Your task to perform on an android device: find which apps use the phone's location Image 0: 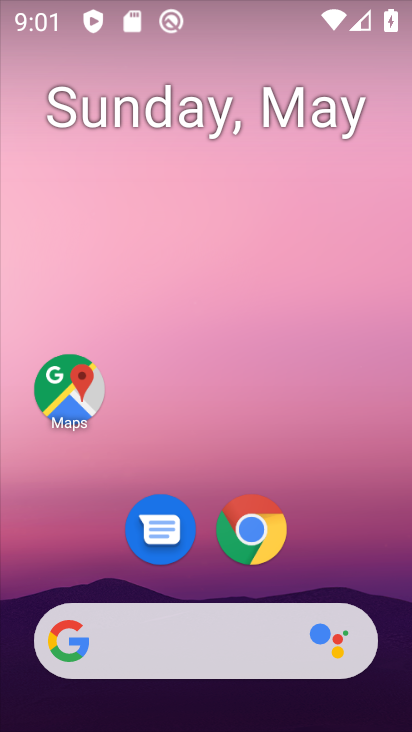
Step 0: drag from (201, 572) to (241, 116)
Your task to perform on an android device: find which apps use the phone's location Image 1: 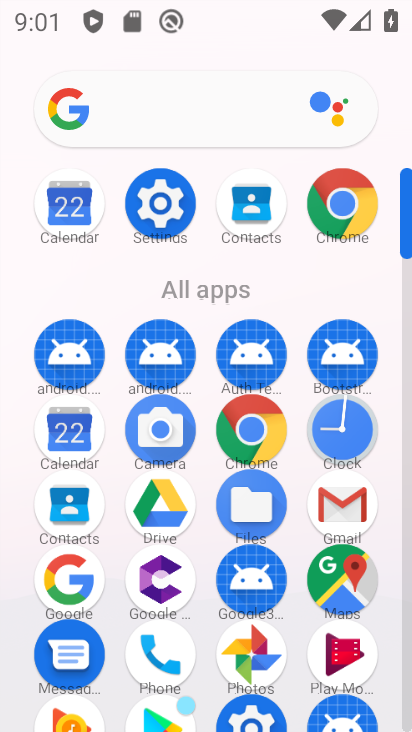
Step 1: click (143, 195)
Your task to perform on an android device: find which apps use the phone's location Image 2: 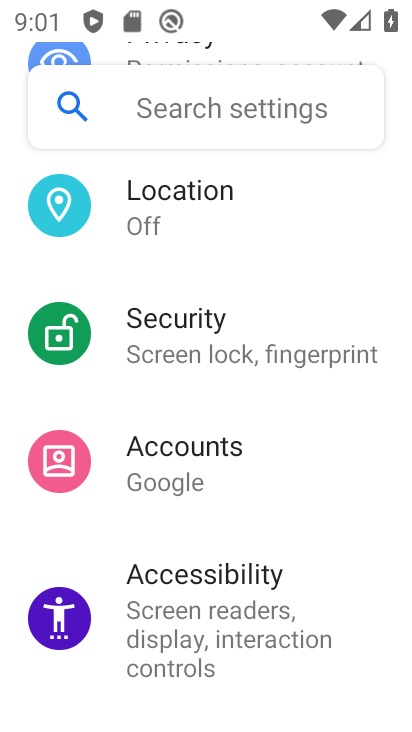
Step 2: drag from (209, 253) to (250, 644)
Your task to perform on an android device: find which apps use the phone's location Image 3: 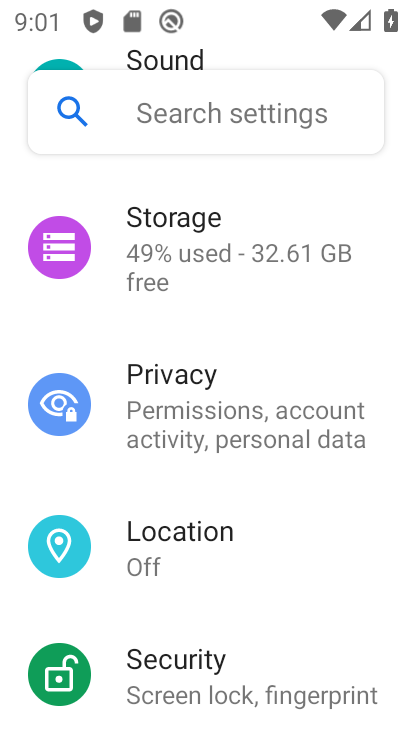
Step 3: drag from (215, 294) to (259, 374)
Your task to perform on an android device: find which apps use the phone's location Image 4: 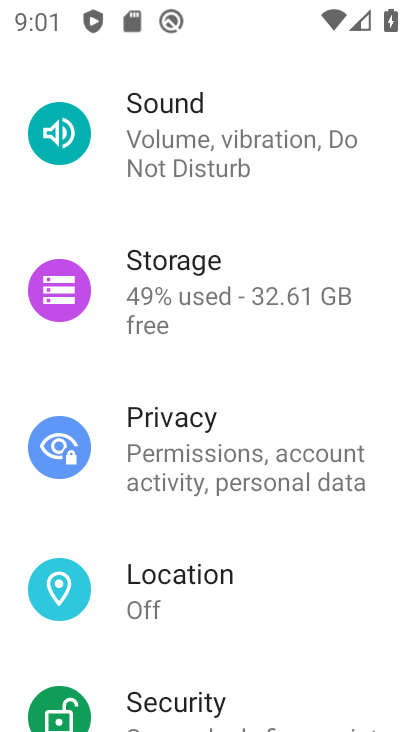
Step 4: click (153, 562)
Your task to perform on an android device: find which apps use the phone's location Image 5: 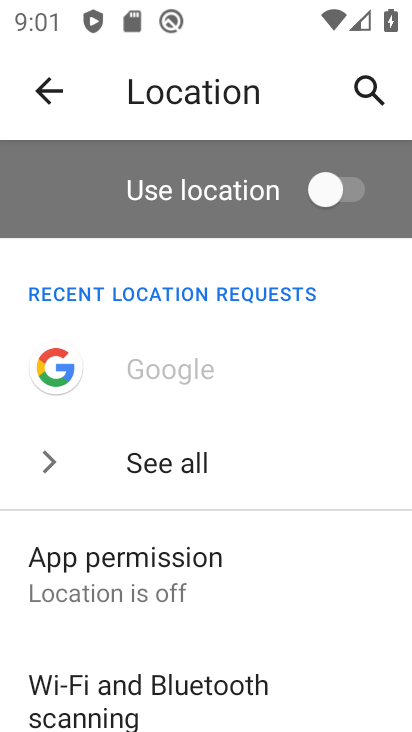
Step 5: drag from (283, 590) to (297, 145)
Your task to perform on an android device: find which apps use the phone's location Image 6: 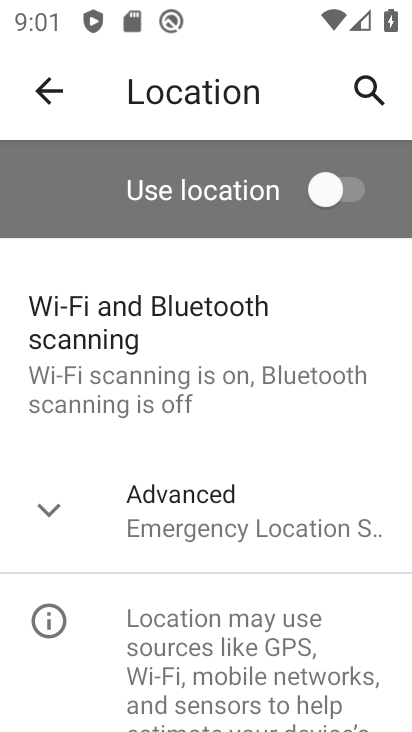
Step 6: click (181, 515)
Your task to perform on an android device: find which apps use the phone's location Image 7: 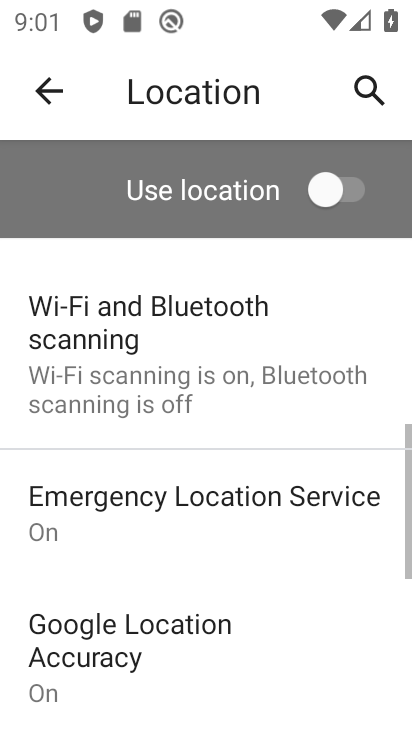
Step 7: drag from (297, 578) to (288, 695)
Your task to perform on an android device: find which apps use the phone's location Image 8: 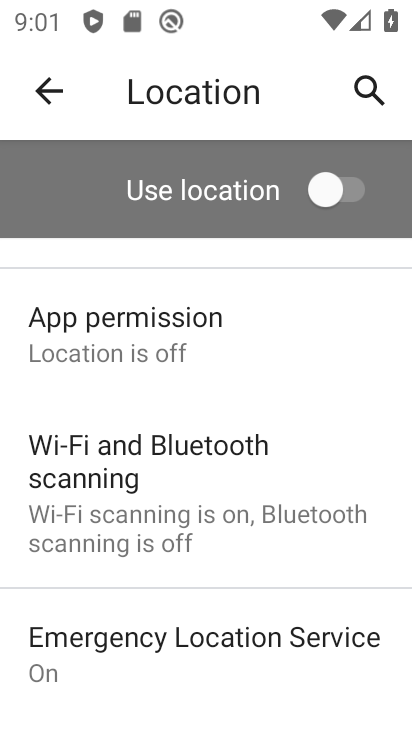
Step 8: click (171, 338)
Your task to perform on an android device: find which apps use the phone's location Image 9: 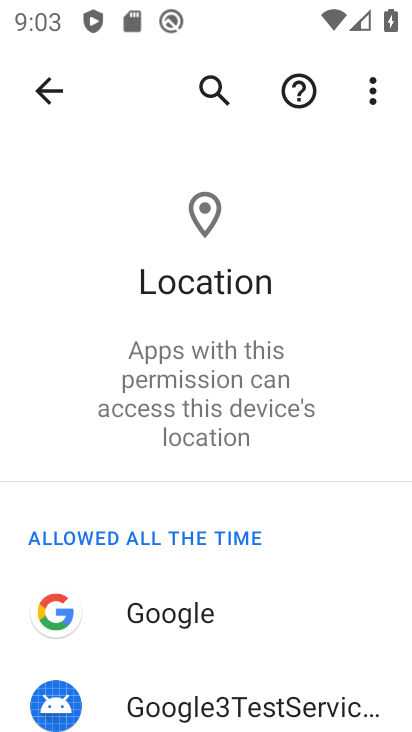
Step 9: task complete